Your task to perform on an android device: change notification settings in the gmail app Image 0: 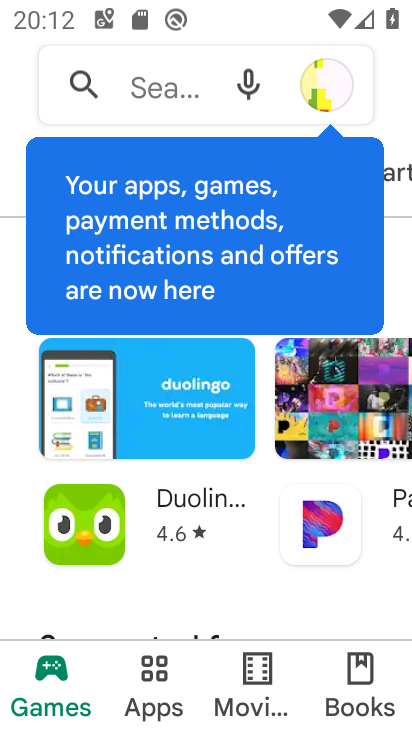
Step 0: press home button
Your task to perform on an android device: change notification settings in the gmail app Image 1: 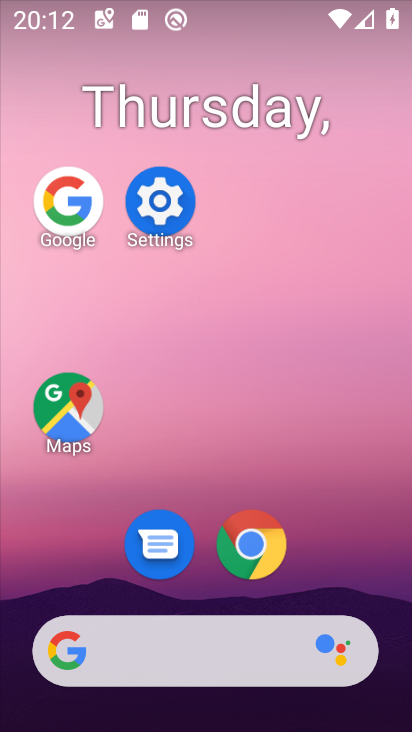
Step 1: drag from (254, 691) to (265, 176)
Your task to perform on an android device: change notification settings in the gmail app Image 2: 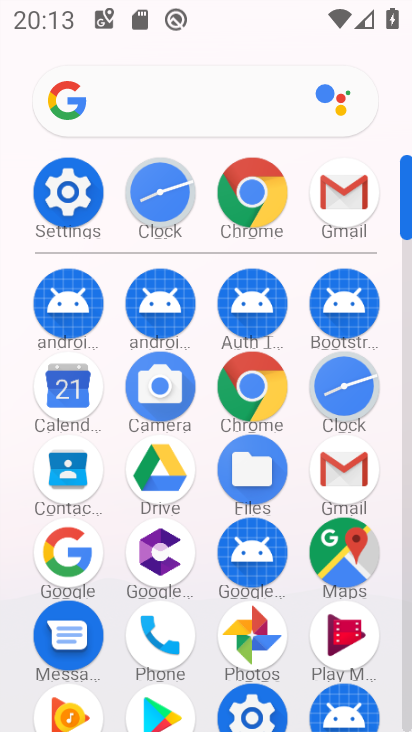
Step 2: click (359, 494)
Your task to perform on an android device: change notification settings in the gmail app Image 3: 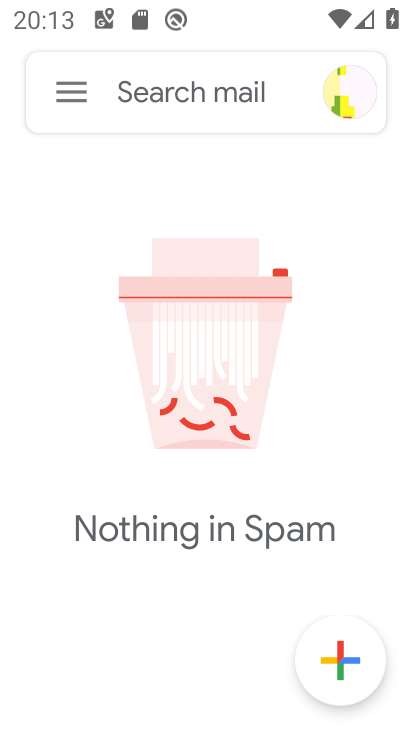
Step 3: click (58, 84)
Your task to perform on an android device: change notification settings in the gmail app Image 4: 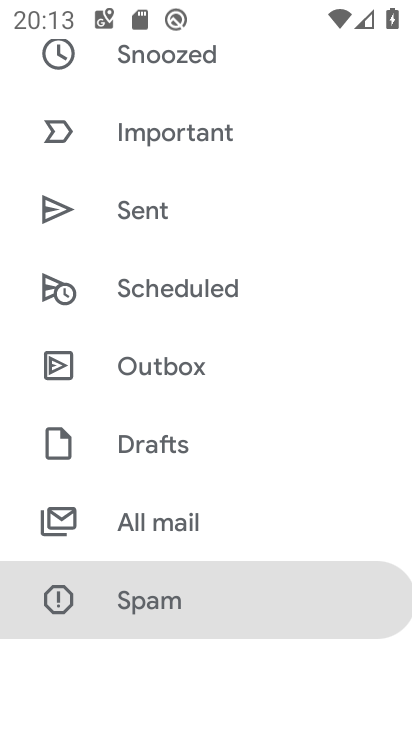
Step 4: drag from (200, 460) to (229, 264)
Your task to perform on an android device: change notification settings in the gmail app Image 5: 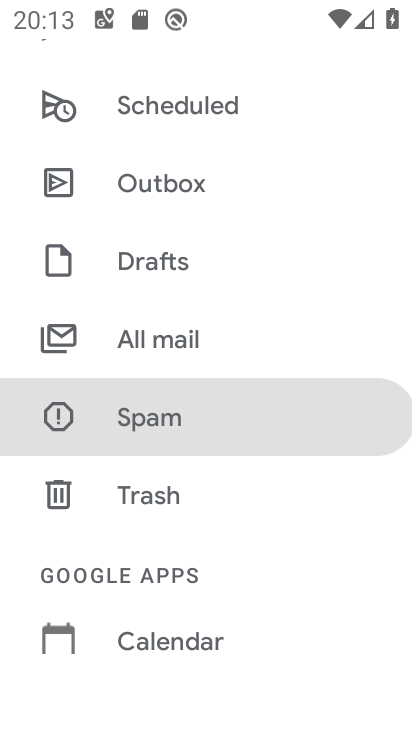
Step 5: drag from (196, 553) to (229, 215)
Your task to perform on an android device: change notification settings in the gmail app Image 6: 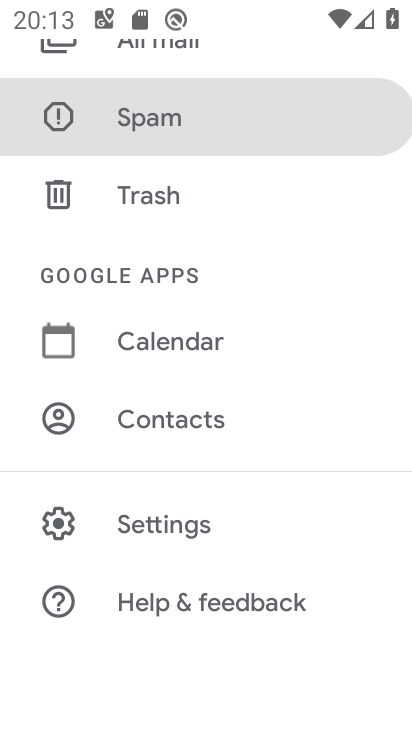
Step 6: click (164, 520)
Your task to perform on an android device: change notification settings in the gmail app Image 7: 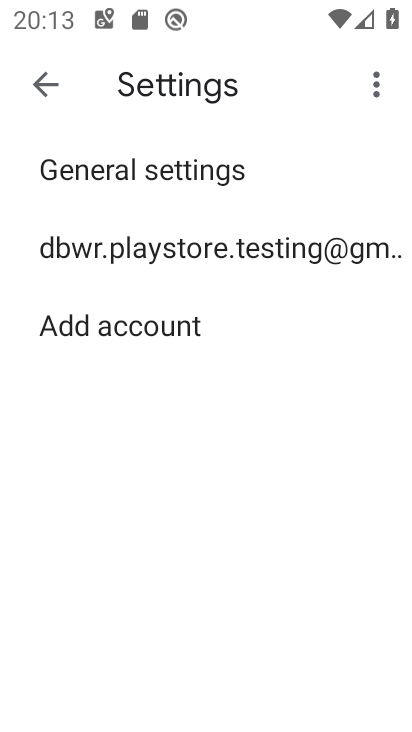
Step 7: click (165, 260)
Your task to perform on an android device: change notification settings in the gmail app Image 8: 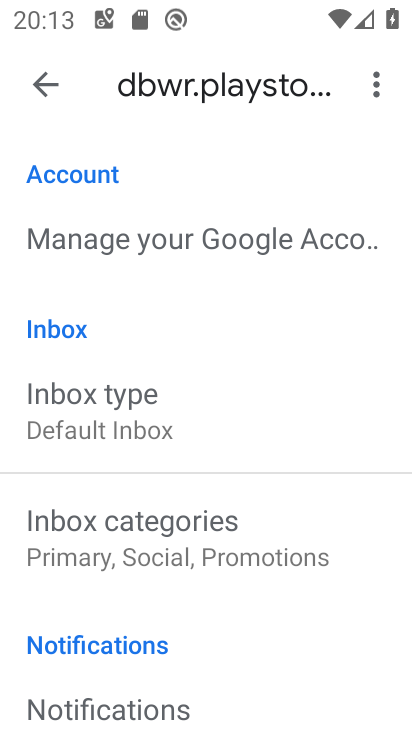
Step 8: click (100, 709)
Your task to perform on an android device: change notification settings in the gmail app Image 9: 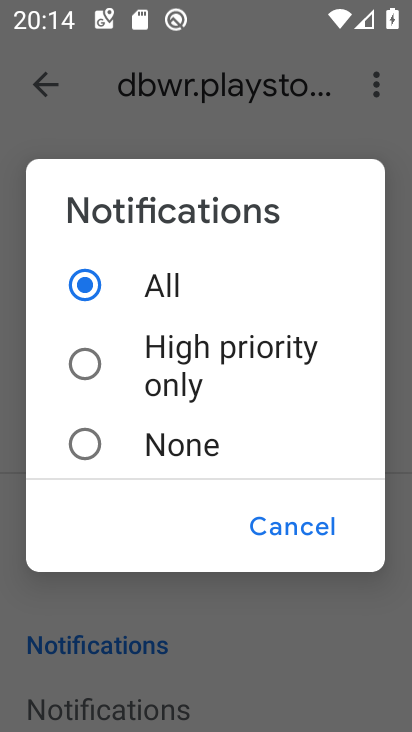
Step 9: task complete